Your task to perform on an android device: Search for pizza restaurants on Maps Image 0: 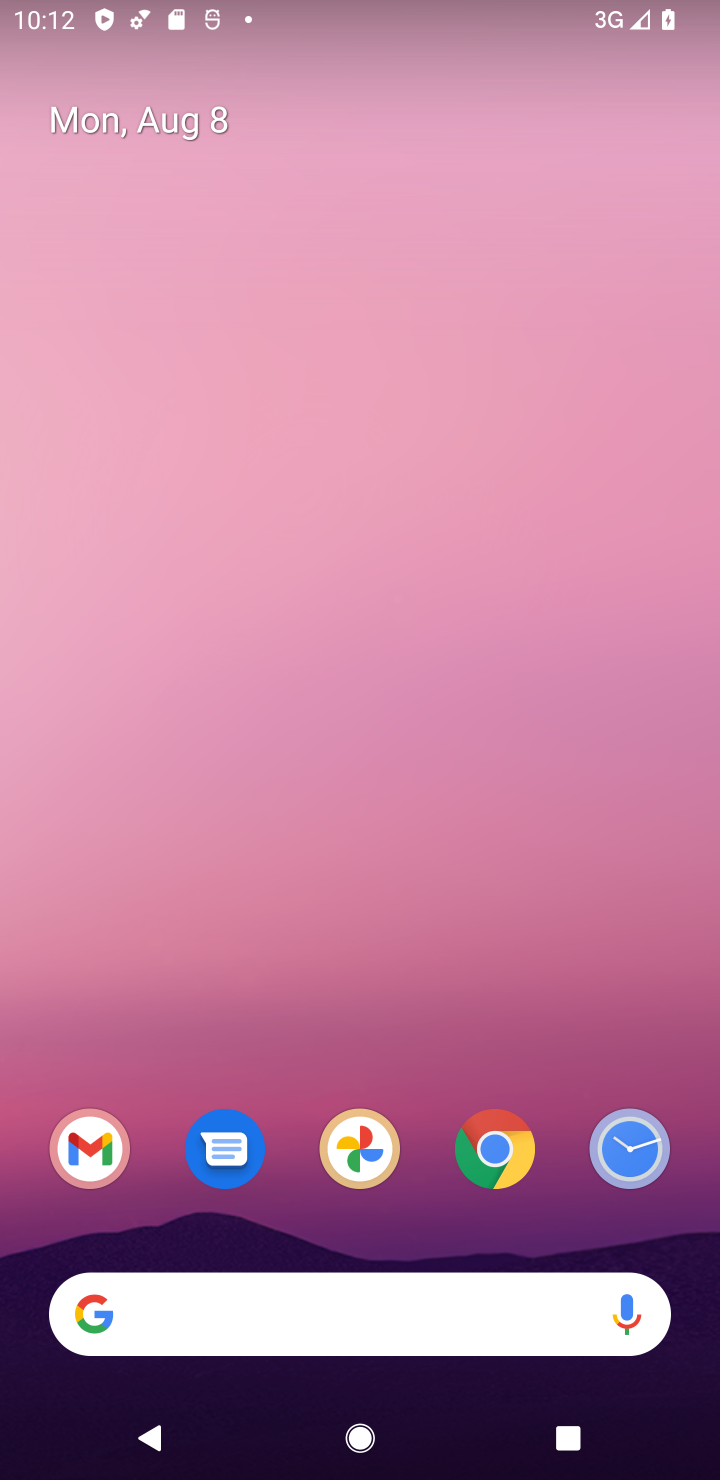
Step 0: drag from (219, 1250) to (195, 239)
Your task to perform on an android device: Search for pizza restaurants on Maps Image 1: 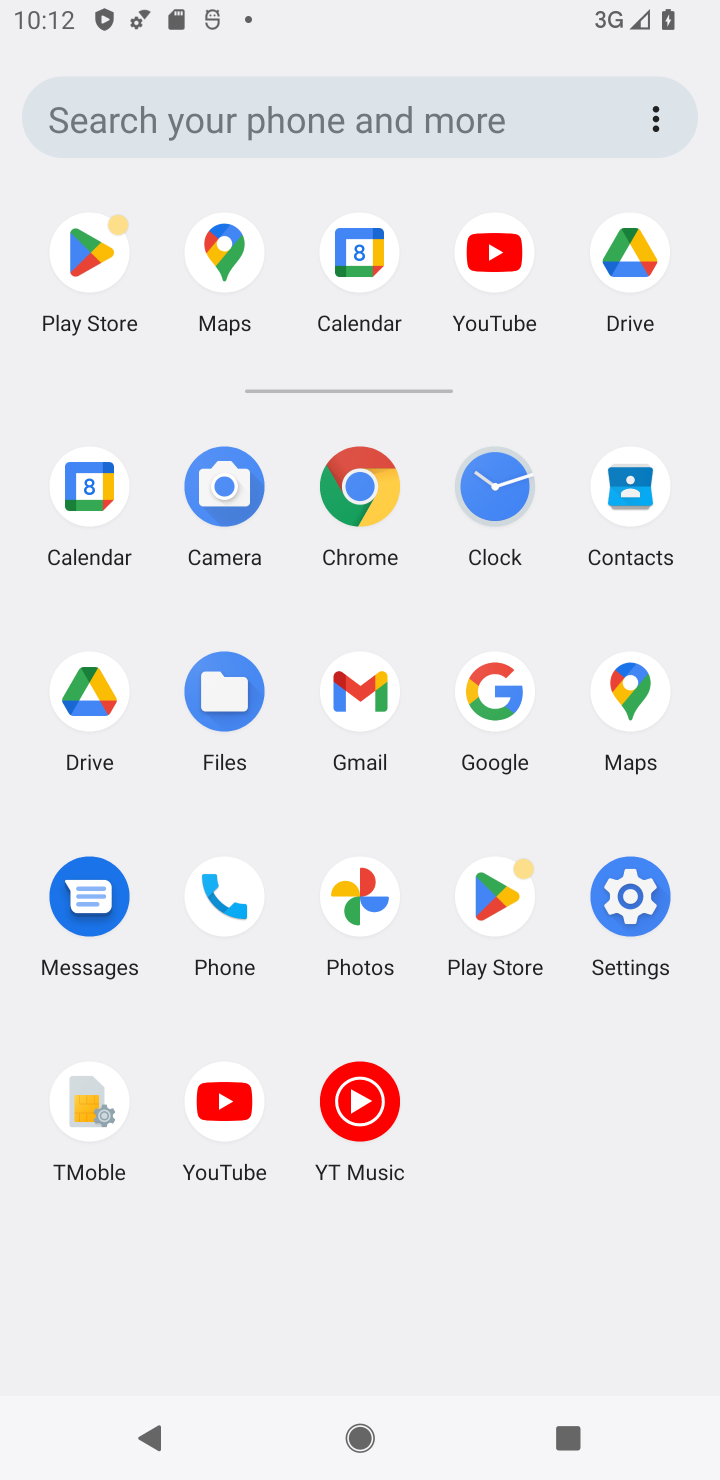
Step 1: click (621, 695)
Your task to perform on an android device: Search for pizza restaurants on Maps Image 2: 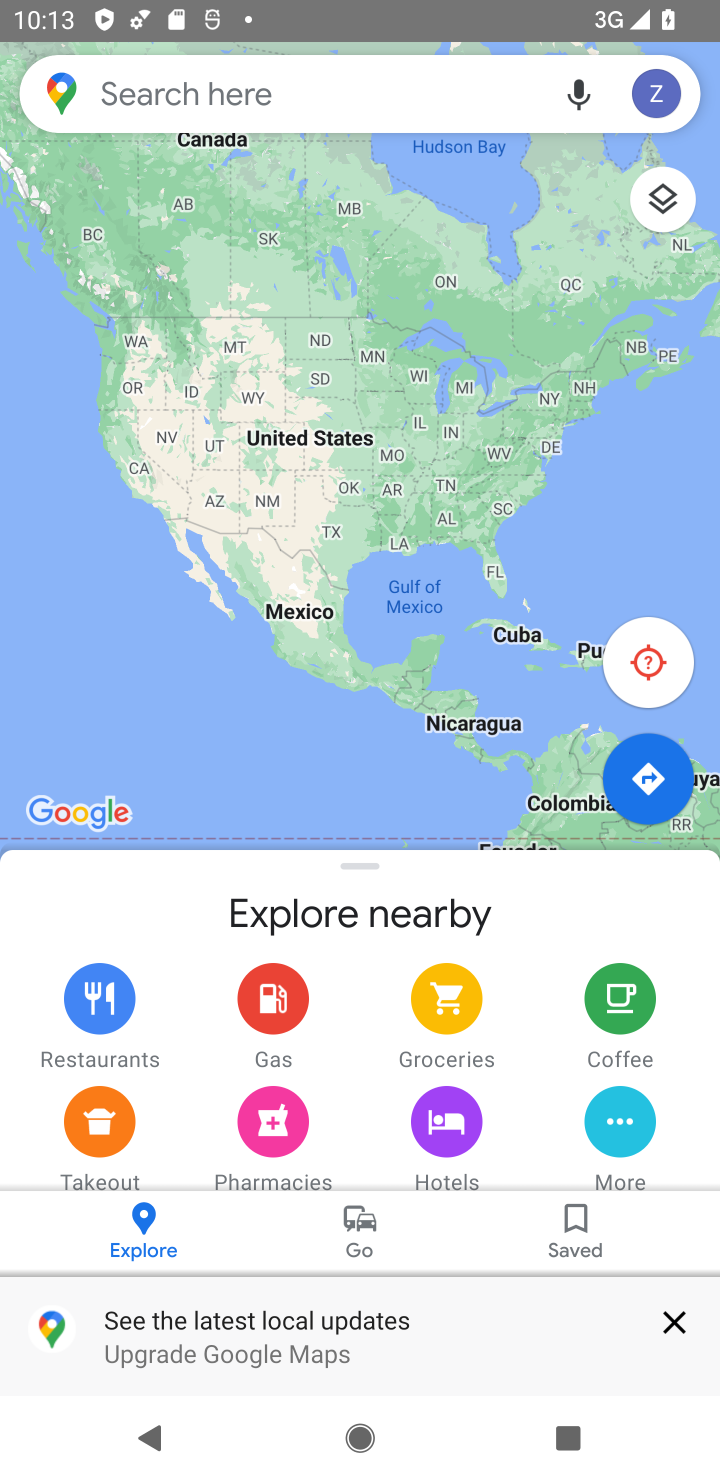
Step 2: click (255, 63)
Your task to perform on an android device: Search for pizza restaurants on Maps Image 3: 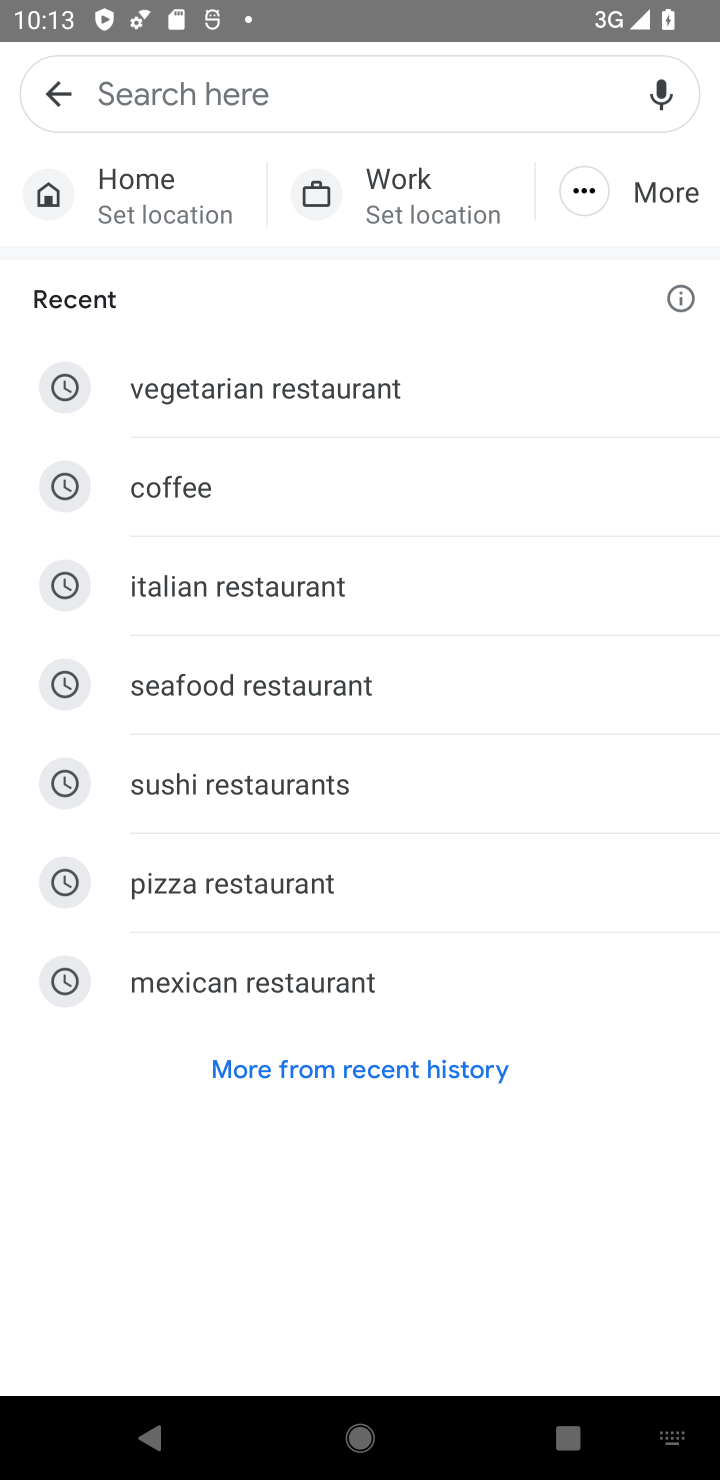
Step 3: click (248, 885)
Your task to perform on an android device: Search for pizza restaurants on Maps Image 4: 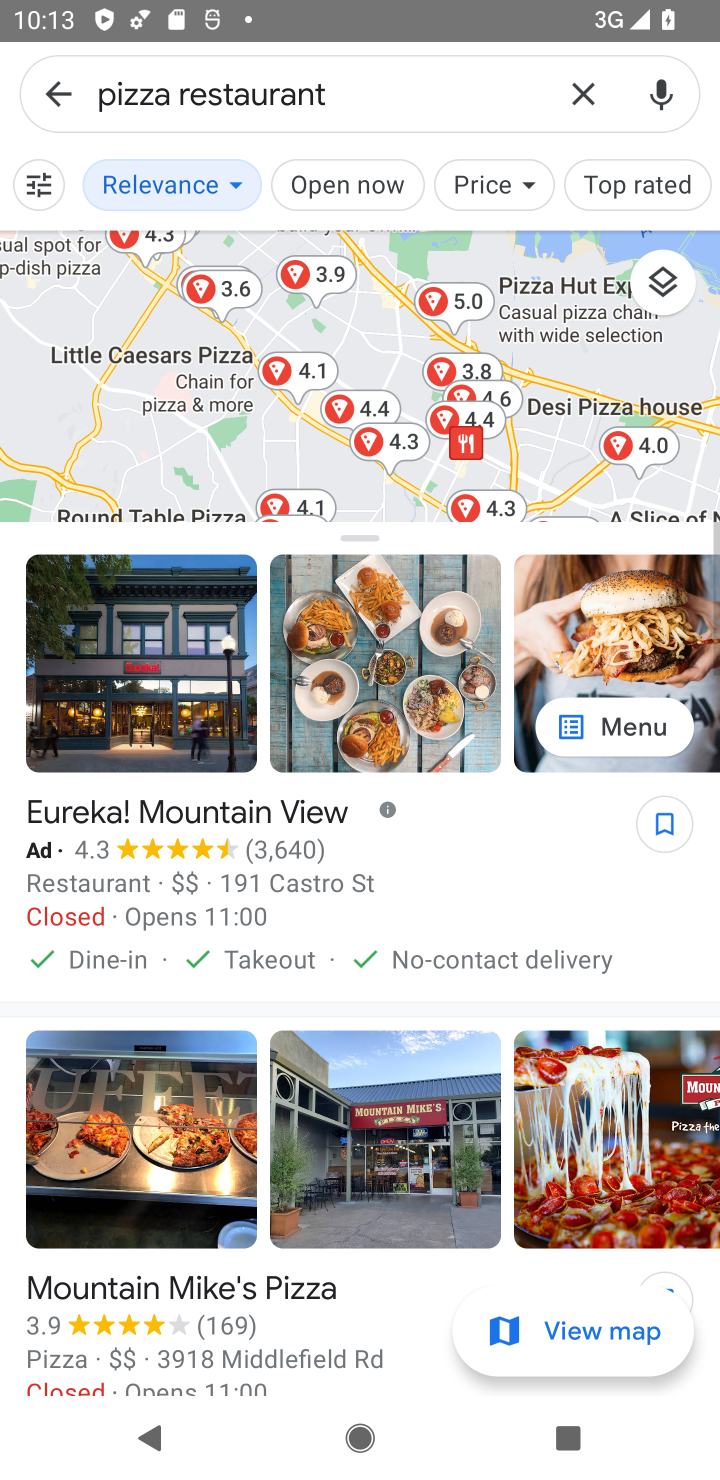
Step 4: task complete